Your task to perform on an android device: turn on the 12-hour format for clock Image 0: 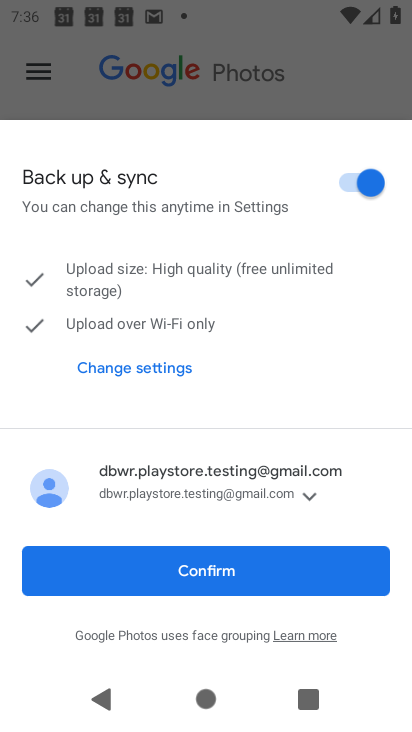
Step 0: click (257, 564)
Your task to perform on an android device: turn on the 12-hour format for clock Image 1: 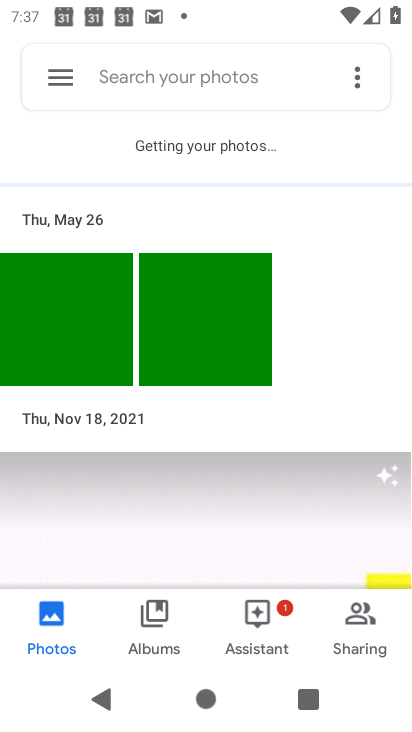
Step 1: press home button
Your task to perform on an android device: turn on the 12-hour format for clock Image 2: 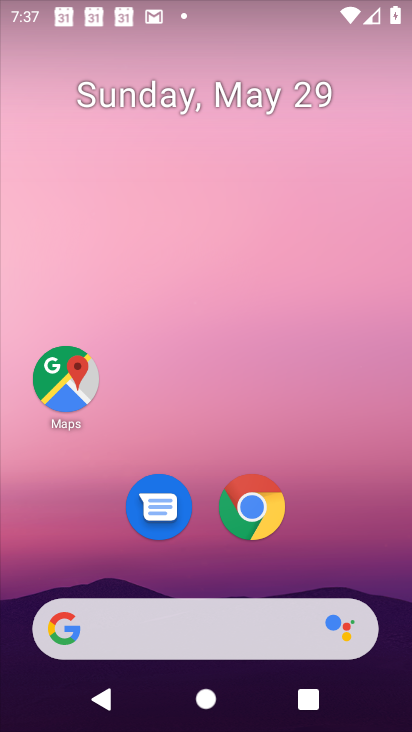
Step 2: drag from (322, 536) to (294, 7)
Your task to perform on an android device: turn on the 12-hour format for clock Image 3: 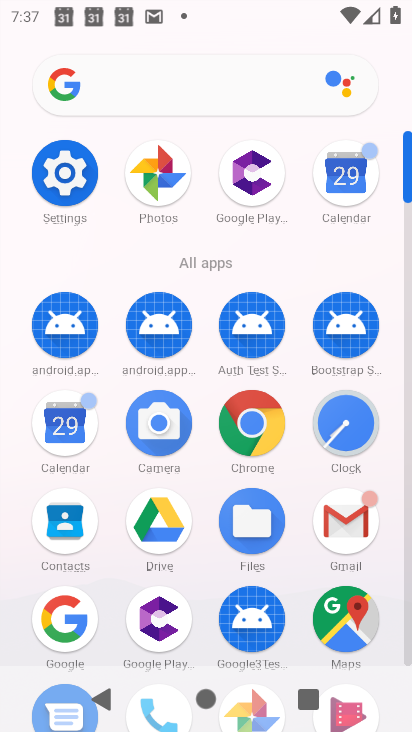
Step 3: click (345, 427)
Your task to perform on an android device: turn on the 12-hour format for clock Image 4: 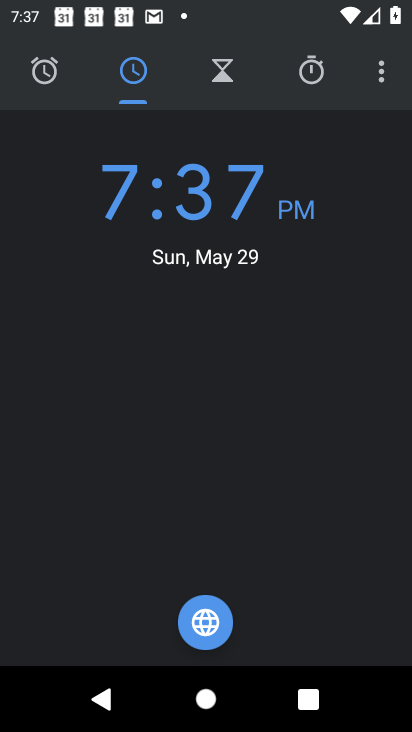
Step 4: click (386, 75)
Your task to perform on an android device: turn on the 12-hour format for clock Image 5: 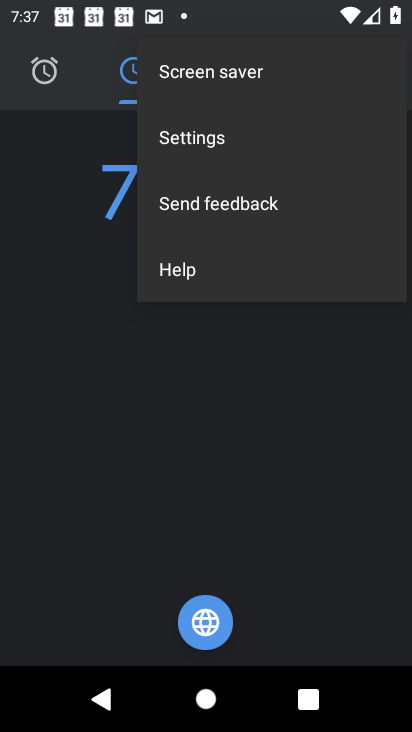
Step 5: click (265, 148)
Your task to perform on an android device: turn on the 12-hour format for clock Image 6: 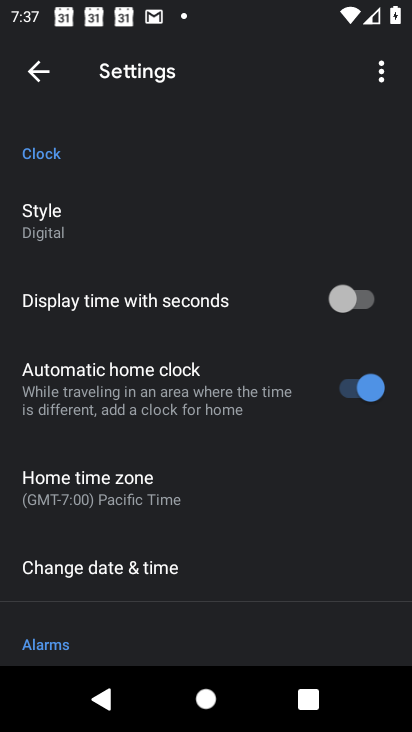
Step 6: drag from (174, 560) to (158, 165)
Your task to perform on an android device: turn on the 12-hour format for clock Image 7: 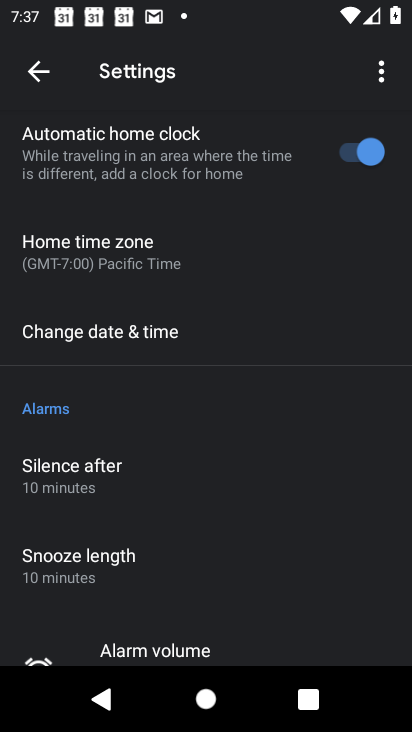
Step 7: click (214, 324)
Your task to perform on an android device: turn on the 12-hour format for clock Image 8: 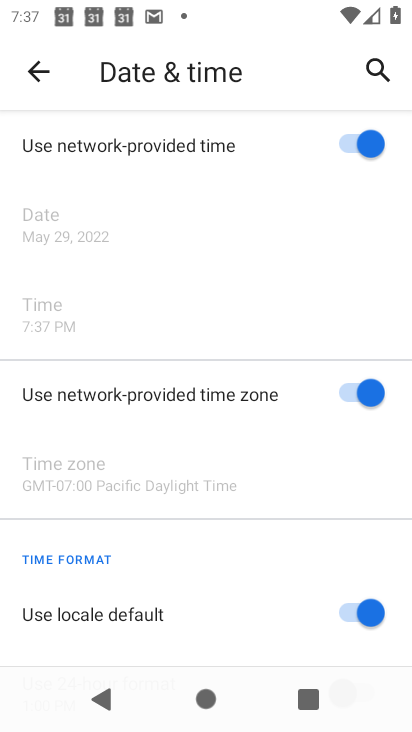
Step 8: drag from (152, 548) to (152, 365)
Your task to perform on an android device: turn on the 12-hour format for clock Image 9: 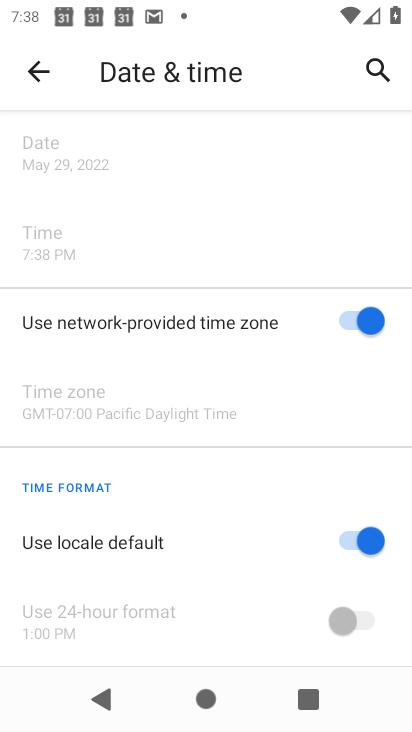
Step 9: click (337, 530)
Your task to perform on an android device: turn on the 12-hour format for clock Image 10: 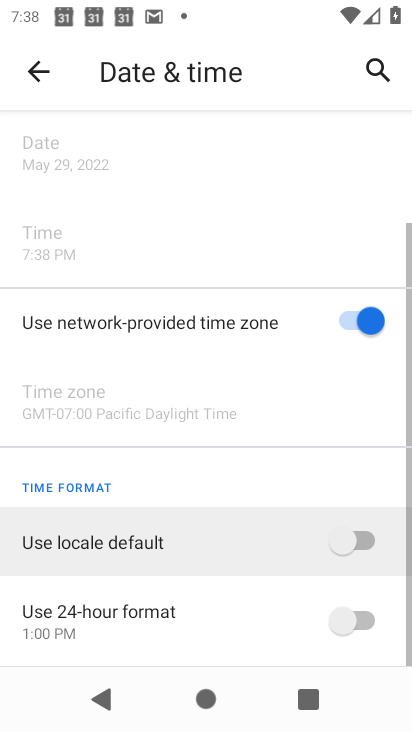
Step 10: click (337, 530)
Your task to perform on an android device: turn on the 12-hour format for clock Image 11: 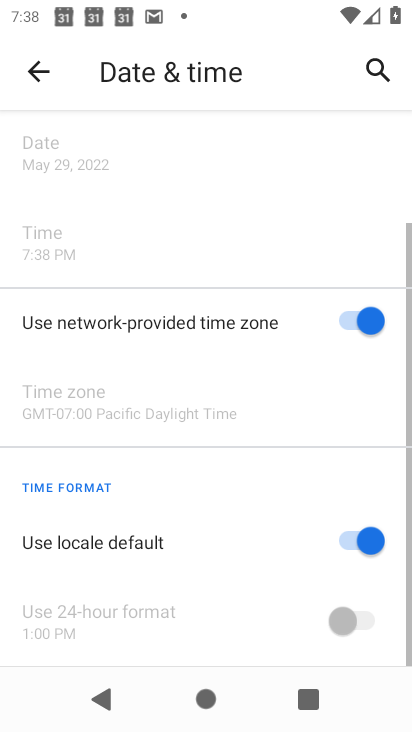
Step 11: task complete